Your task to perform on an android device: View the shopping cart on amazon.com. Search for "jbl charge 4" on amazon.com, select the first entry, add it to the cart, then select checkout. Image 0: 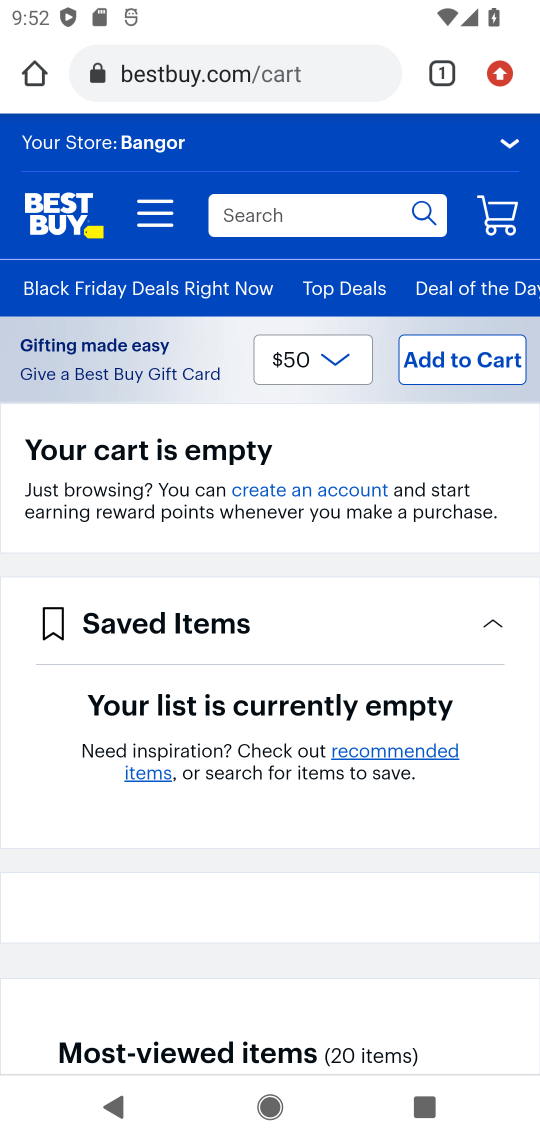
Step 0: click (280, 61)
Your task to perform on an android device: View the shopping cart on amazon.com. Search for "jbl charge 4" on amazon.com, select the first entry, add it to the cart, then select checkout. Image 1: 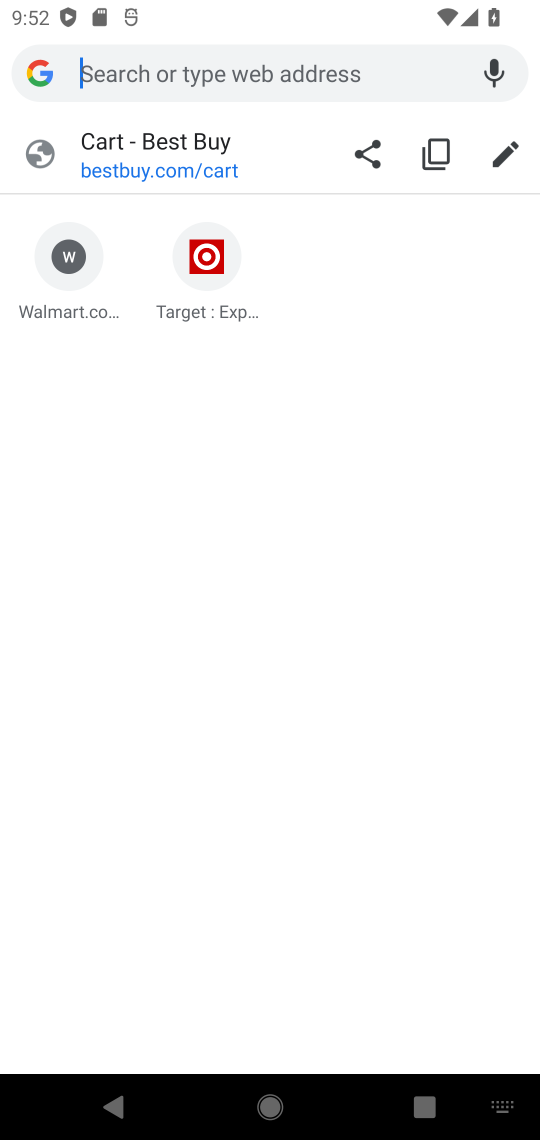
Step 1: type " amazon.com"
Your task to perform on an android device: View the shopping cart on amazon.com. Search for "jbl charge 4" on amazon.com, select the first entry, add it to the cart, then select checkout. Image 2: 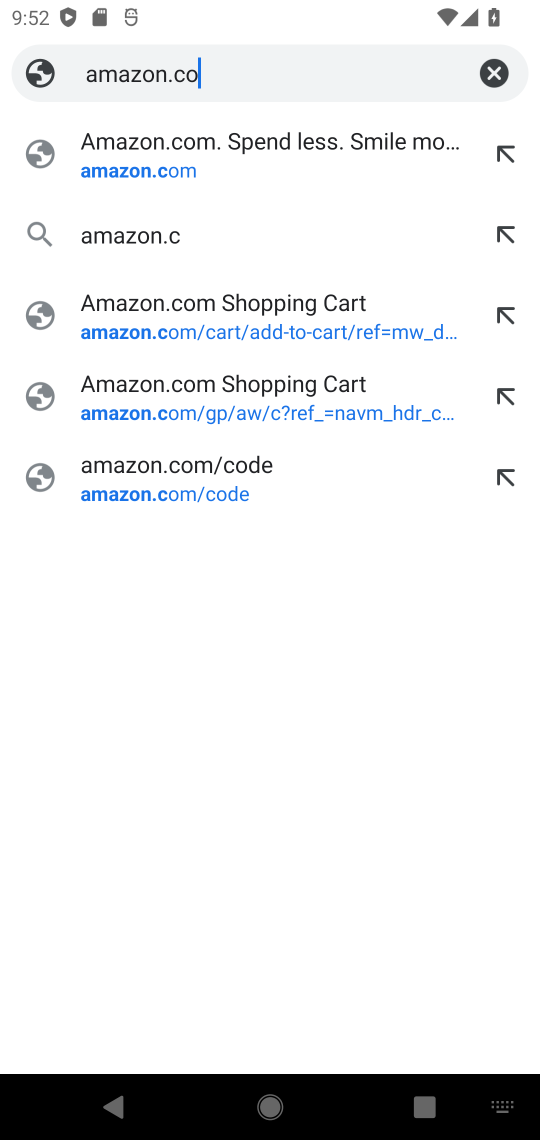
Step 2: press enter
Your task to perform on an android device: View the shopping cart on amazon.com. Search for "jbl charge 4" on amazon.com, select the first entry, add it to the cart, then select checkout. Image 3: 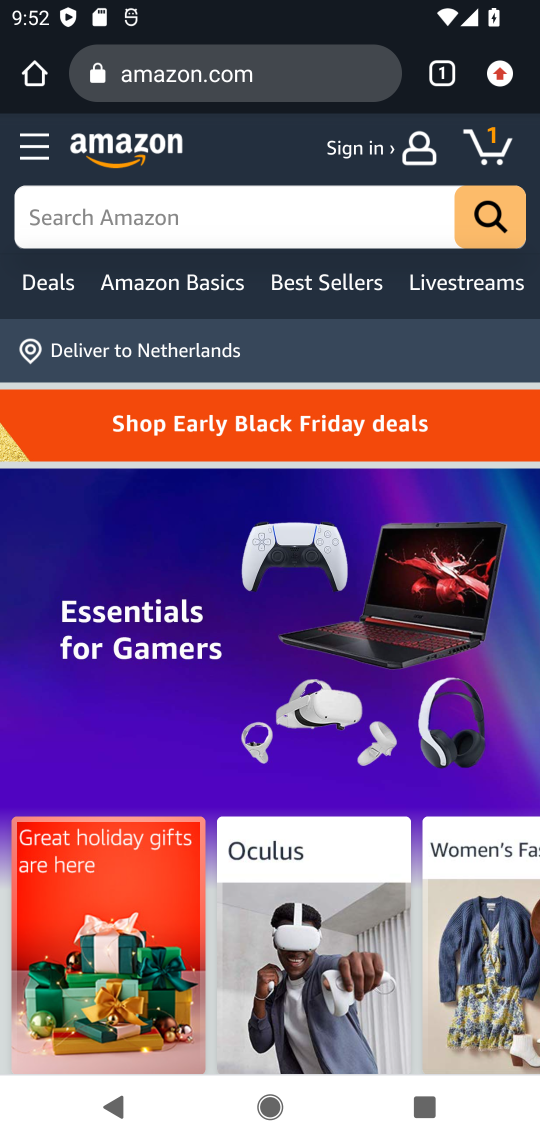
Step 3: click (180, 202)
Your task to perform on an android device: View the shopping cart on amazon.com. Search for "jbl charge 4" on amazon.com, select the first entry, add it to the cart, then select checkout. Image 4: 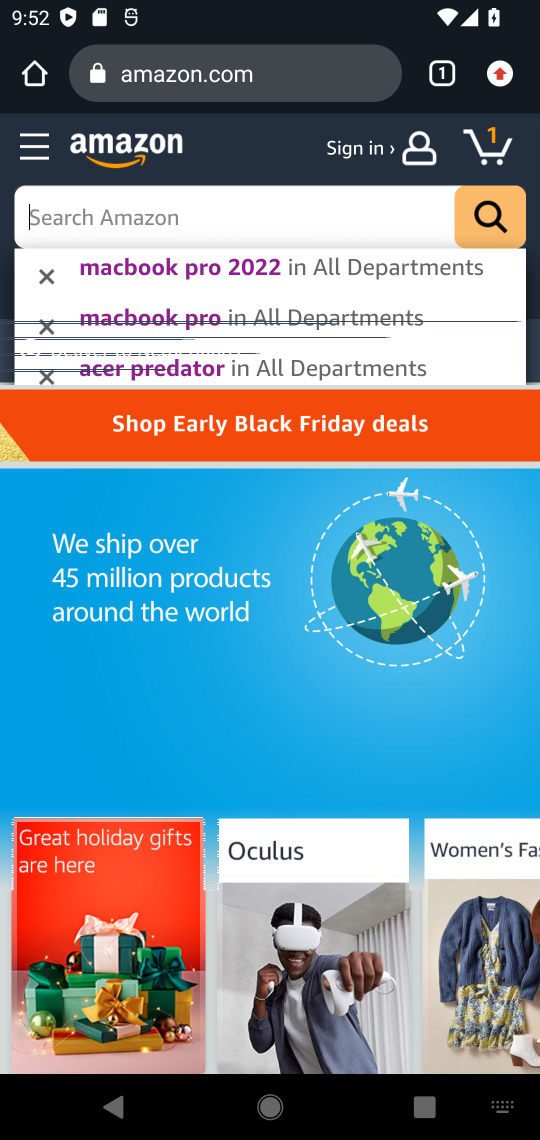
Step 4: type "jbl charge 4"
Your task to perform on an android device: View the shopping cart on amazon.com. Search for "jbl charge 4" on amazon.com, select the first entry, add it to the cart, then select checkout. Image 5: 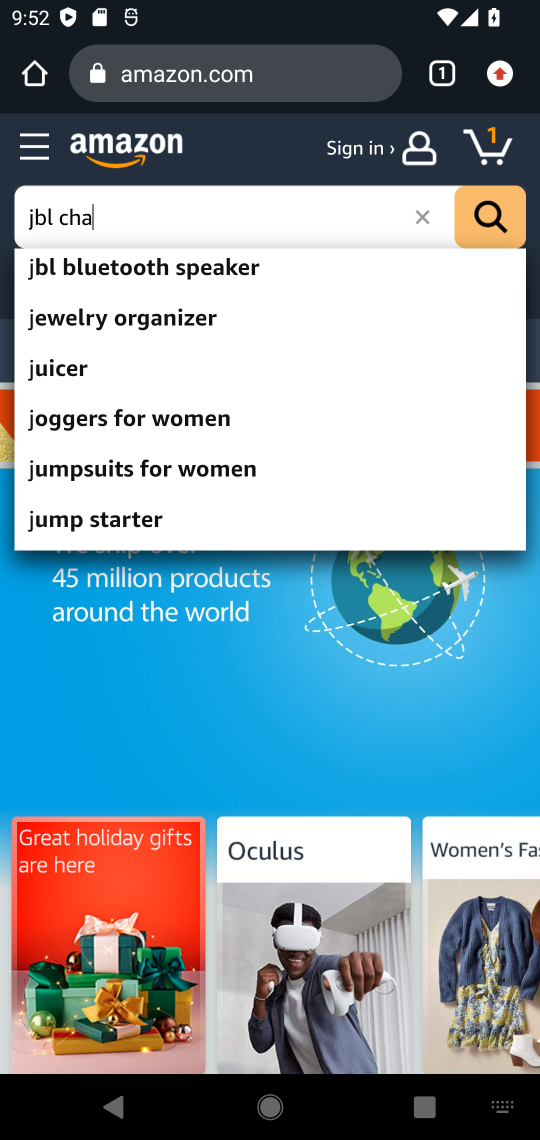
Step 5: press enter
Your task to perform on an android device: View the shopping cart on amazon.com. Search for "jbl charge 4" on amazon.com, select the first entry, add it to the cart, then select checkout. Image 6: 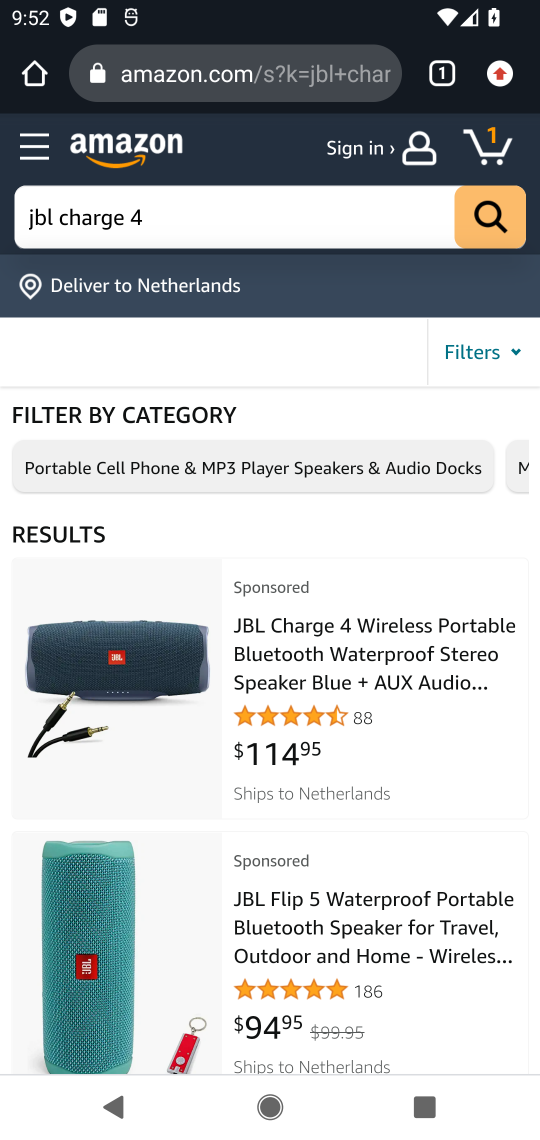
Step 6: click (149, 660)
Your task to perform on an android device: View the shopping cart on amazon.com. Search for "jbl charge 4" on amazon.com, select the first entry, add it to the cart, then select checkout. Image 7: 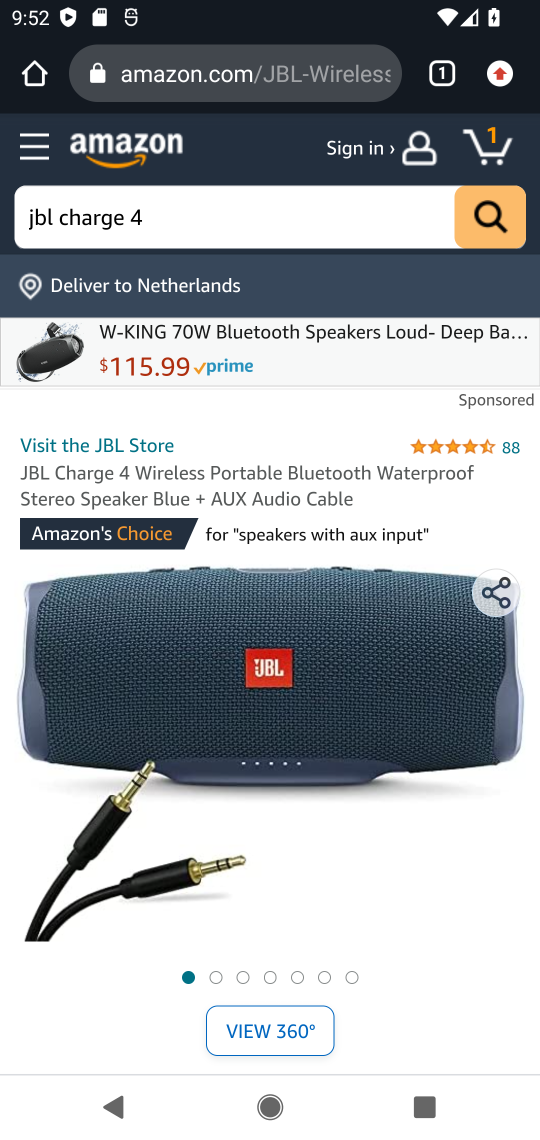
Step 7: drag from (438, 868) to (489, 479)
Your task to perform on an android device: View the shopping cart on amazon.com. Search for "jbl charge 4" on amazon.com, select the first entry, add it to the cart, then select checkout. Image 8: 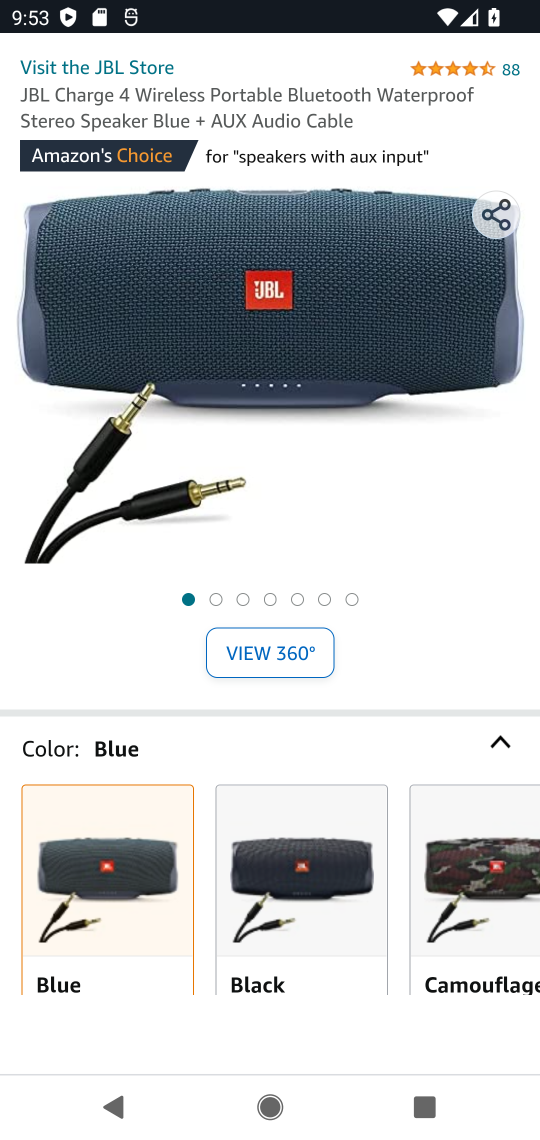
Step 8: drag from (433, 842) to (466, 475)
Your task to perform on an android device: View the shopping cart on amazon.com. Search for "jbl charge 4" on amazon.com, select the first entry, add it to the cart, then select checkout. Image 9: 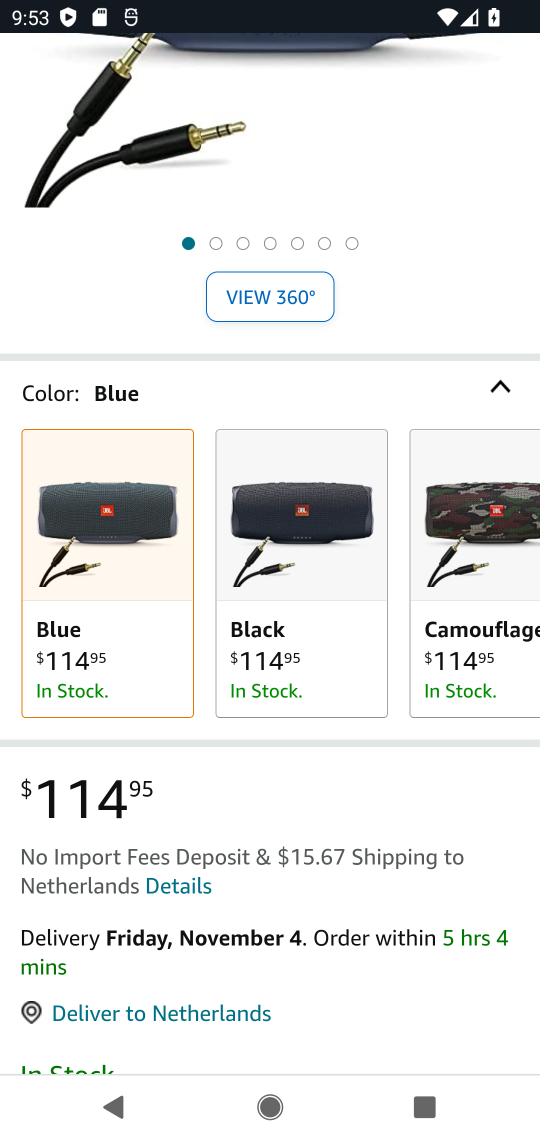
Step 9: drag from (344, 843) to (369, 480)
Your task to perform on an android device: View the shopping cart on amazon.com. Search for "jbl charge 4" on amazon.com, select the first entry, add it to the cart, then select checkout. Image 10: 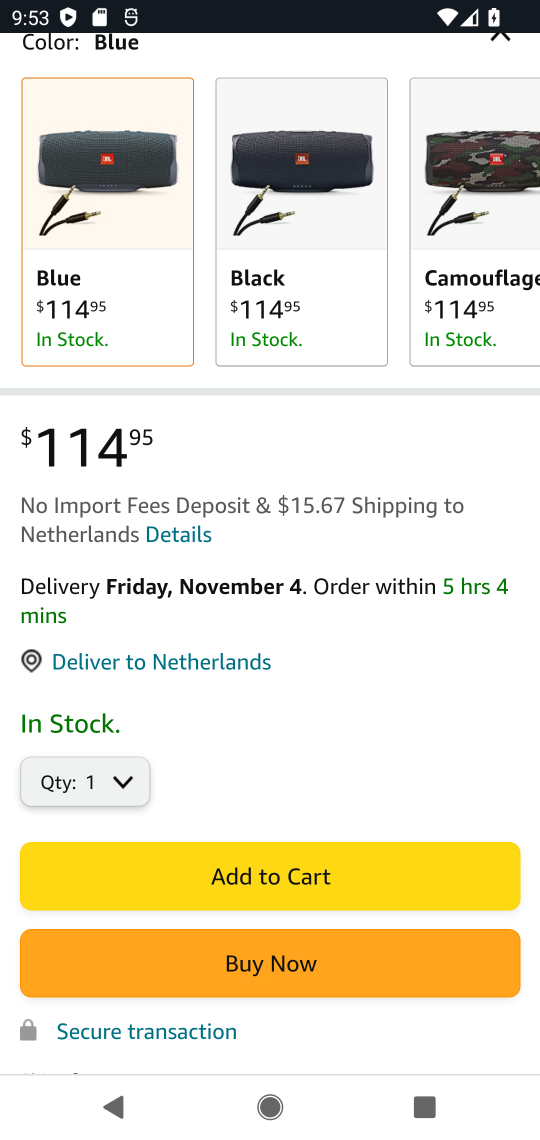
Step 10: click (414, 881)
Your task to perform on an android device: View the shopping cart on amazon.com. Search for "jbl charge 4" on amazon.com, select the first entry, add it to the cart, then select checkout. Image 11: 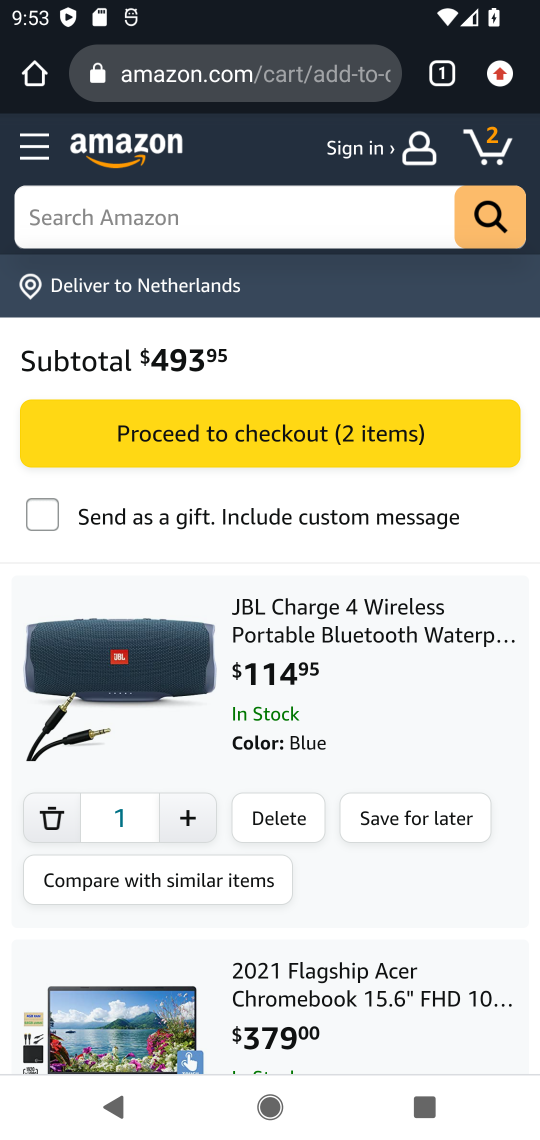
Step 11: click (252, 428)
Your task to perform on an android device: View the shopping cart on amazon.com. Search for "jbl charge 4" on amazon.com, select the first entry, add it to the cart, then select checkout. Image 12: 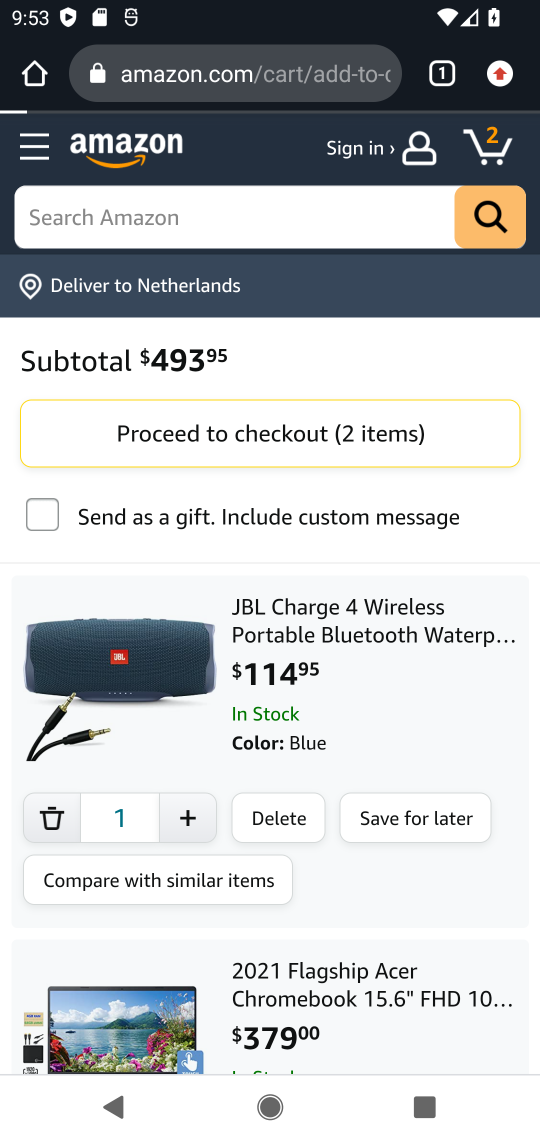
Step 12: click (252, 428)
Your task to perform on an android device: View the shopping cart on amazon.com. Search for "jbl charge 4" on amazon.com, select the first entry, add it to the cart, then select checkout. Image 13: 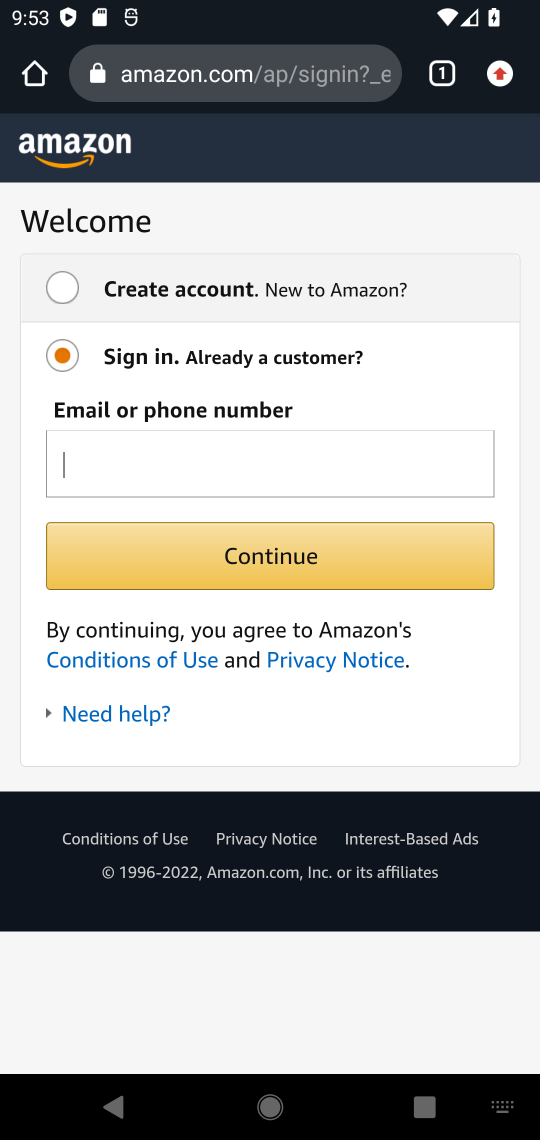
Step 13: task complete